Your task to perform on an android device: delete a single message in the gmail app Image 0: 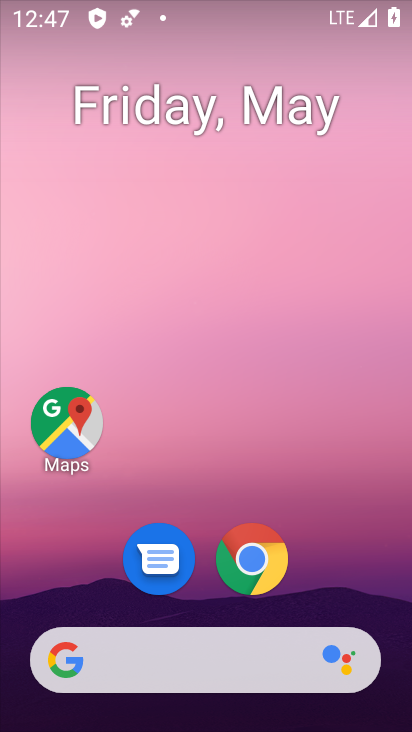
Step 0: drag from (374, 545) to (373, 146)
Your task to perform on an android device: delete a single message in the gmail app Image 1: 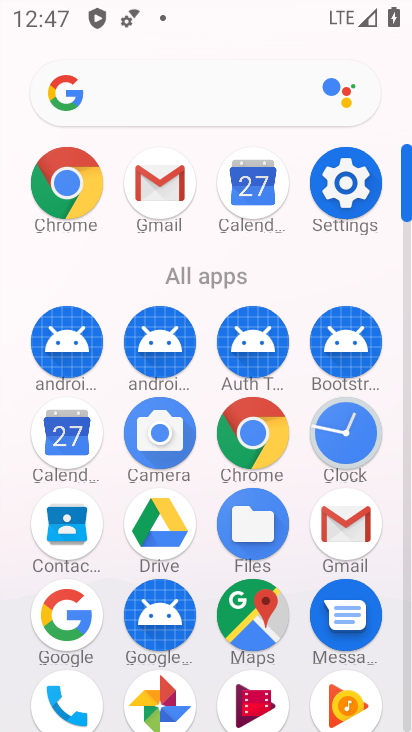
Step 1: click (162, 184)
Your task to perform on an android device: delete a single message in the gmail app Image 2: 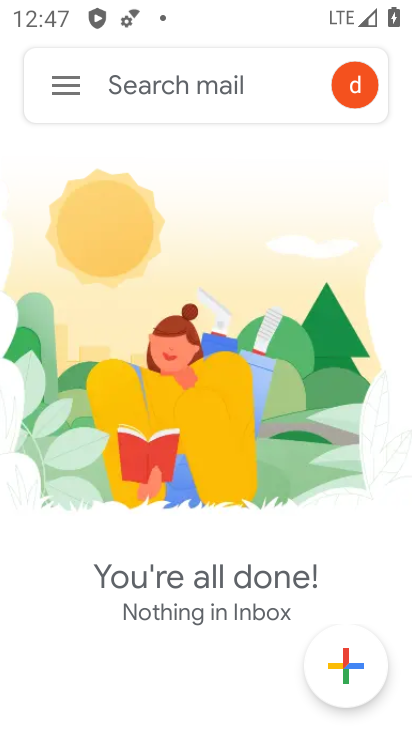
Step 2: click (60, 72)
Your task to perform on an android device: delete a single message in the gmail app Image 3: 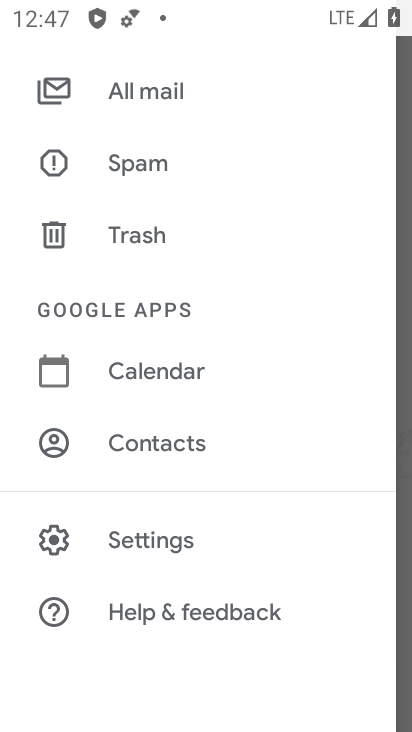
Step 3: click (177, 93)
Your task to perform on an android device: delete a single message in the gmail app Image 4: 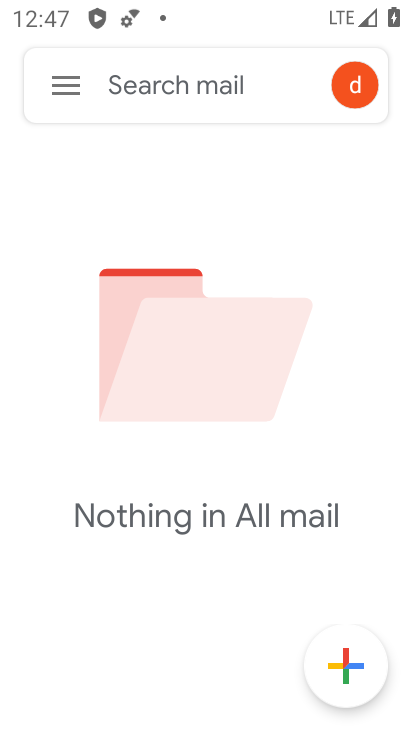
Step 4: task complete